Your task to perform on an android device: uninstall "Google Play Games" Image 0: 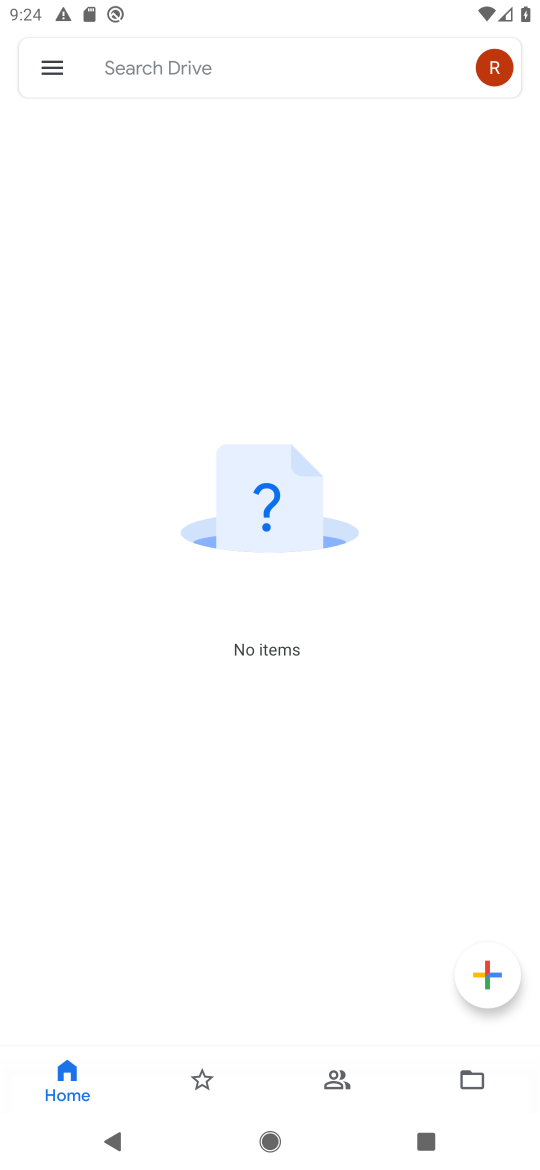
Step 0: press home button
Your task to perform on an android device: uninstall "Google Play Games" Image 1: 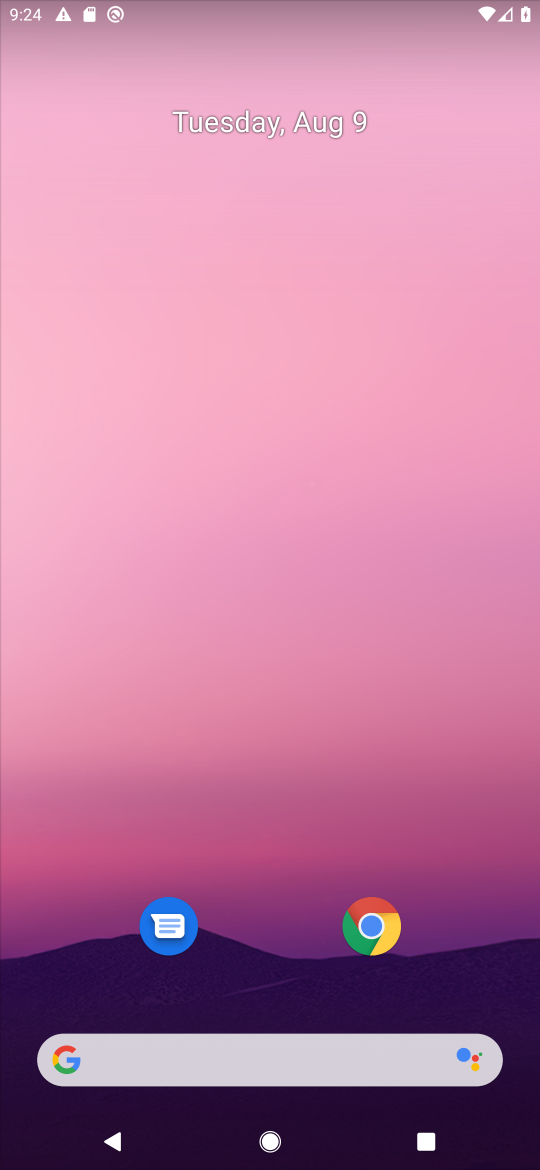
Step 1: drag from (240, 997) to (292, 111)
Your task to perform on an android device: uninstall "Google Play Games" Image 2: 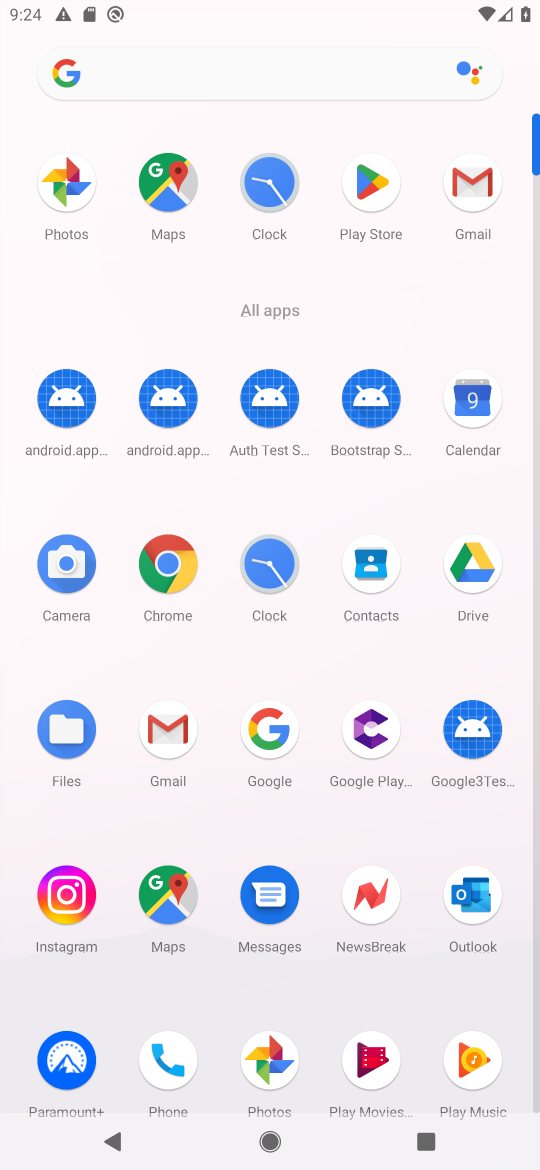
Step 2: click (352, 221)
Your task to perform on an android device: uninstall "Google Play Games" Image 3: 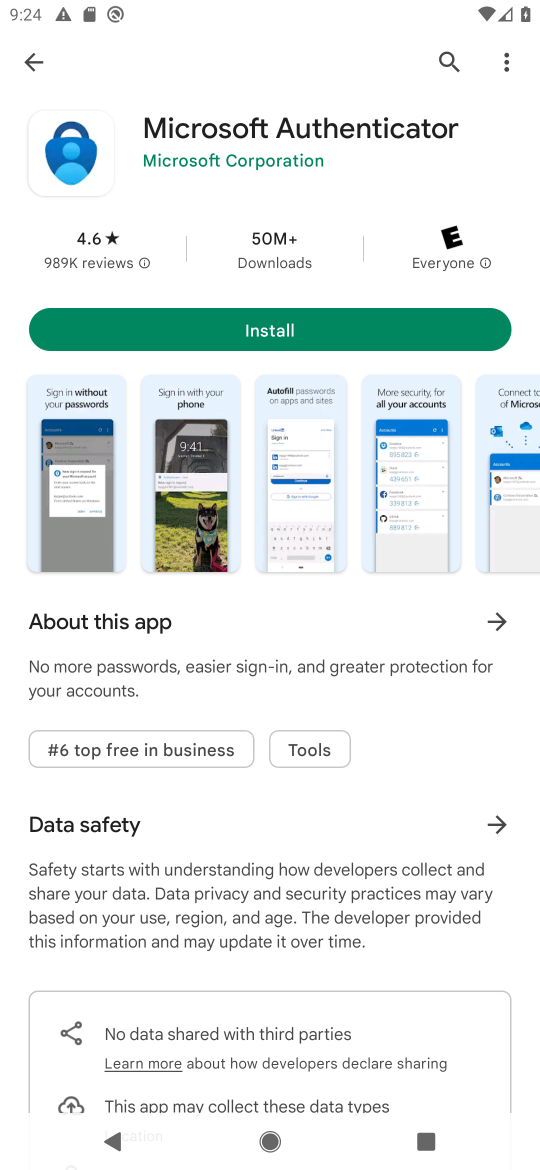
Step 3: click (36, 57)
Your task to perform on an android device: uninstall "Google Play Games" Image 4: 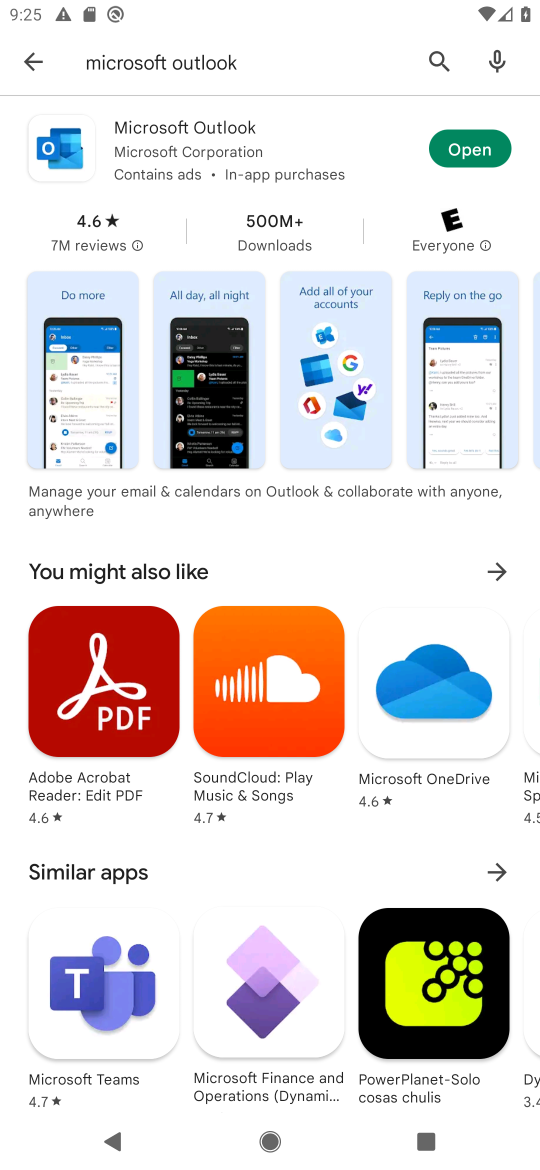
Step 4: click (195, 67)
Your task to perform on an android device: uninstall "Google Play Games" Image 5: 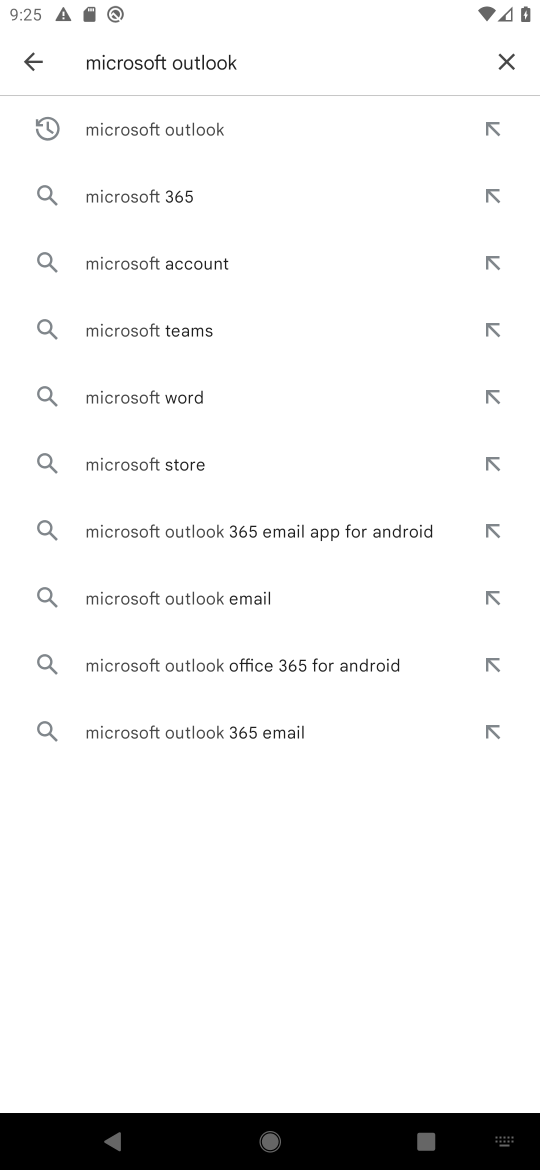
Step 5: click (501, 63)
Your task to perform on an android device: uninstall "Google Play Games" Image 6: 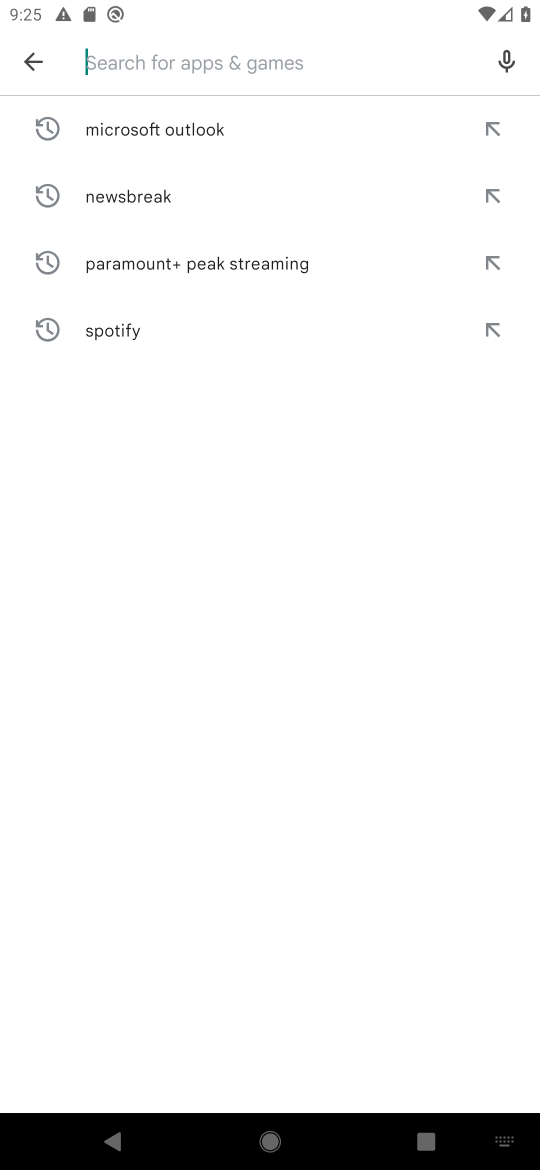
Step 6: type "google play games"
Your task to perform on an android device: uninstall "Google Play Games" Image 7: 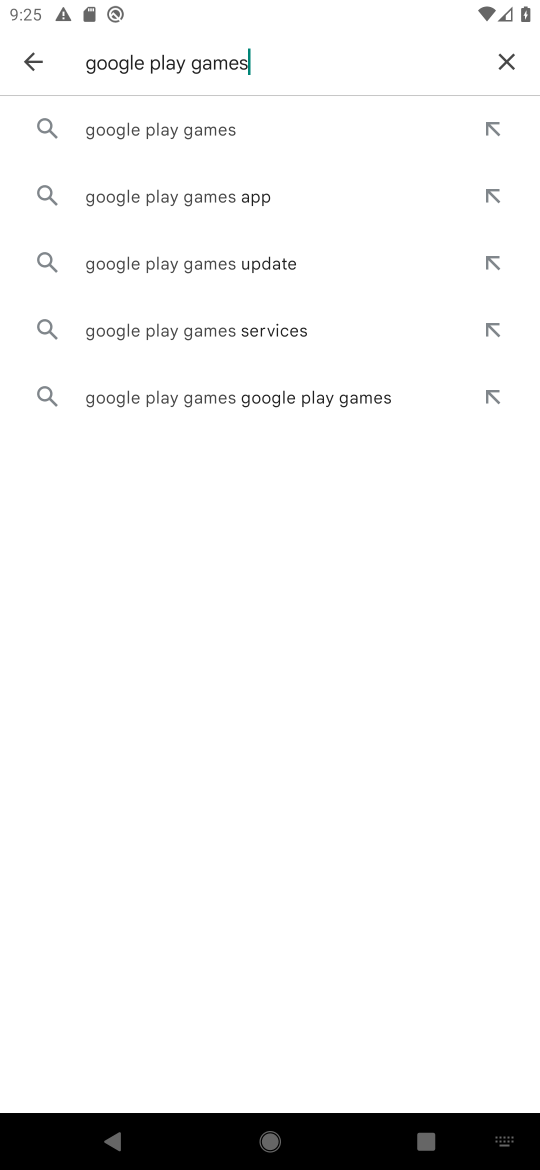
Step 7: click (180, 125)
Your task to perform on an android device: uninstall "Google Play Games" Image 8: 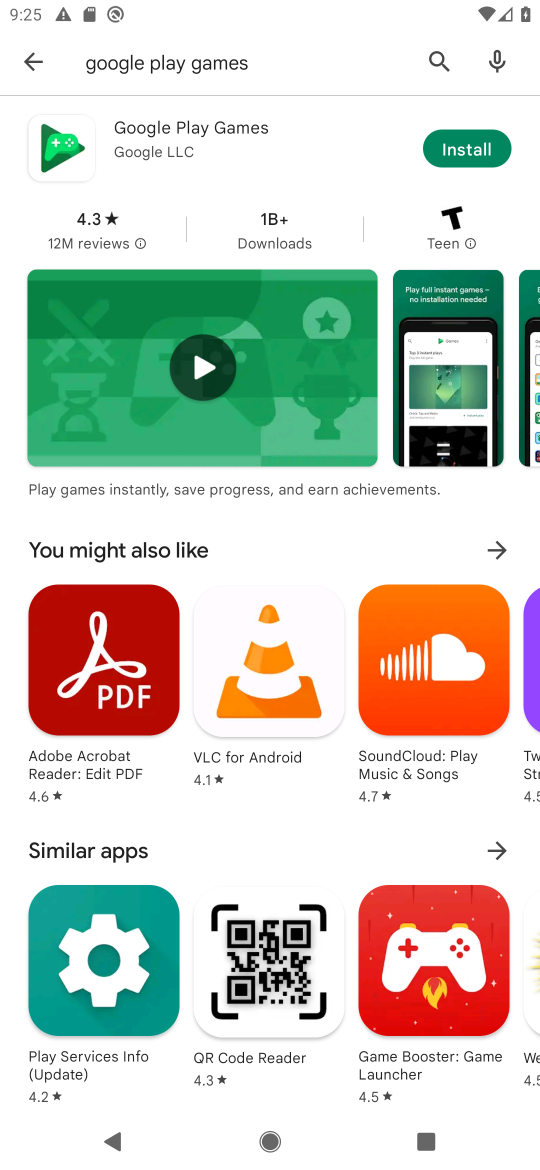
Step 8: task complete